Your task to perform on an android device: When is my next meeting? Image 0: 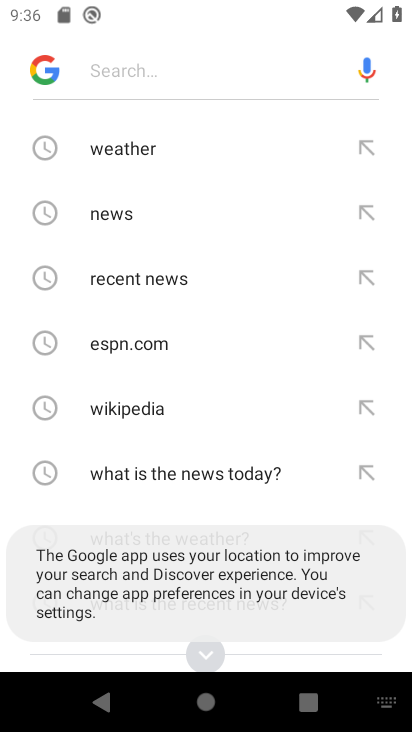
Step 0: press back button
Your task to perform on an android device: When is my next meeting? Image 1: 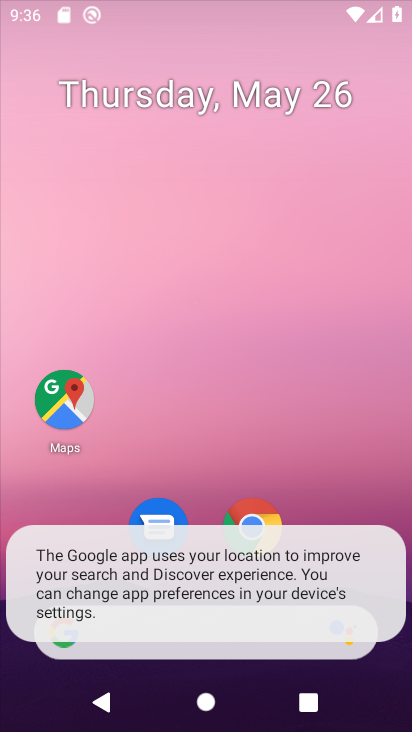
Step 1: press home button
Your task to perform on an android device: When is my next meeting? Image 2: 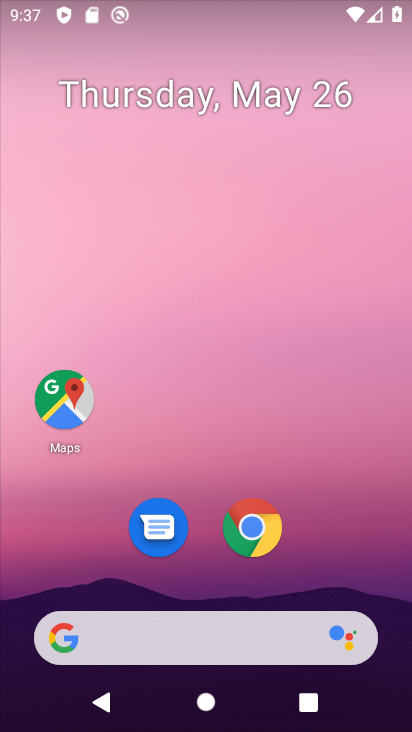
Step 2: drag from (181, 503) to (258, 24)
Your task to perform on an android device: When is my next meeting? Image 3: 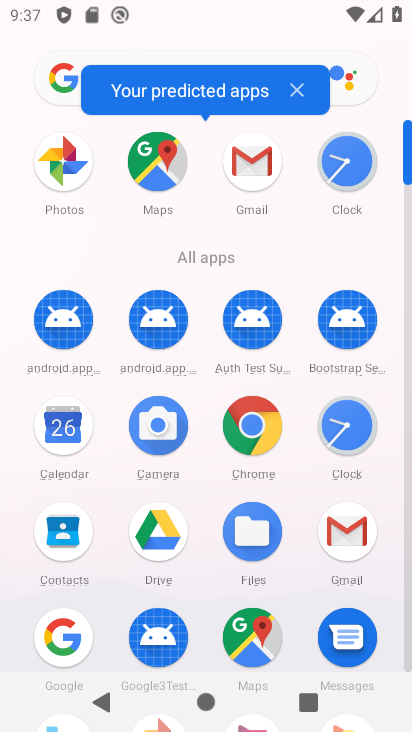
Step 3: click (68, 431)
Your task to perform on an android device: When is my next meeting? Image 4: 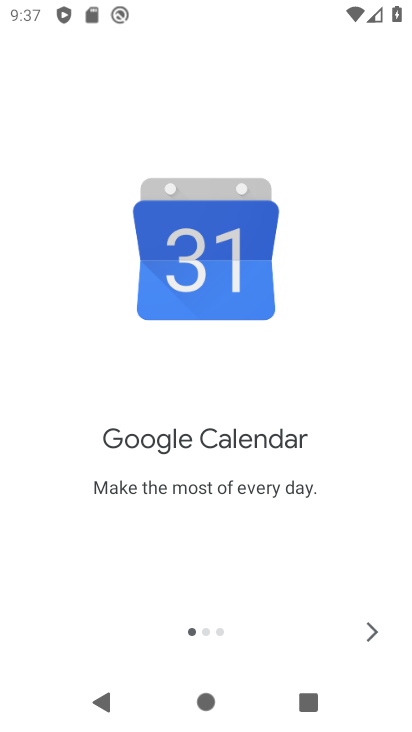
Step 4: click (365, 641)
Your task to perform on an android device: When is my next meeting? Image 5: 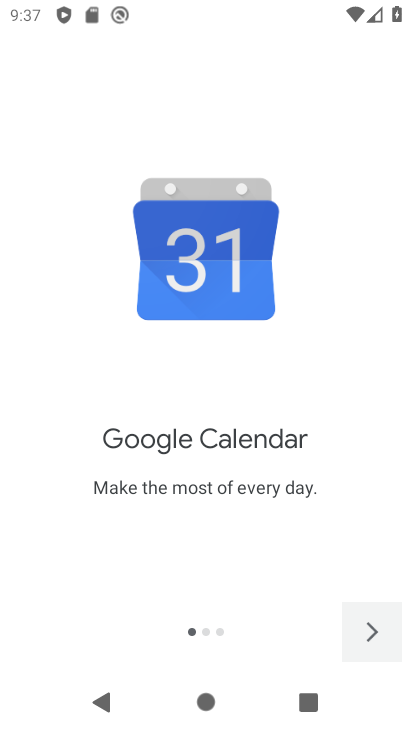
Step 5: click (365, 641)
Your task to perform on an android device: When is my next meeting? Image 6: 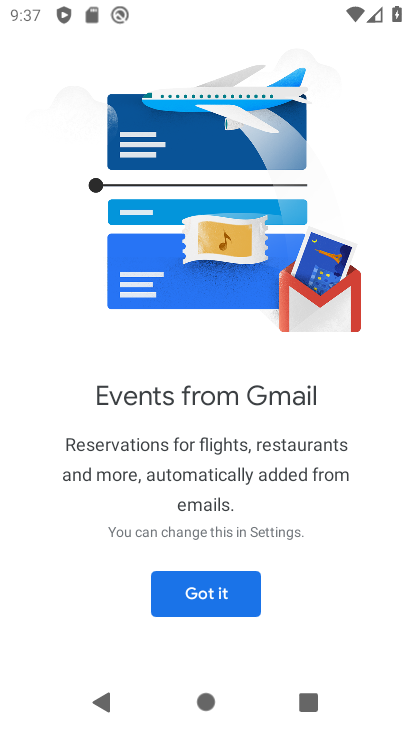
Step 6: click (173, 582)
Your task to perform on an android device: When is my next meeting? Image 7: 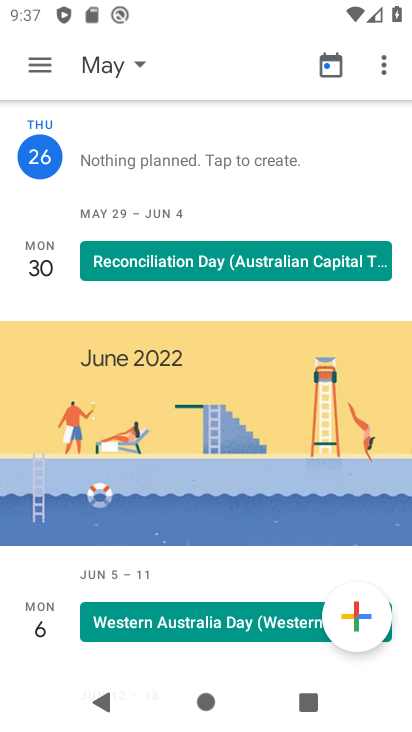
Step 7: click (40, 63)
Your task to perform on an android device: When is my next meeting? Image 8: 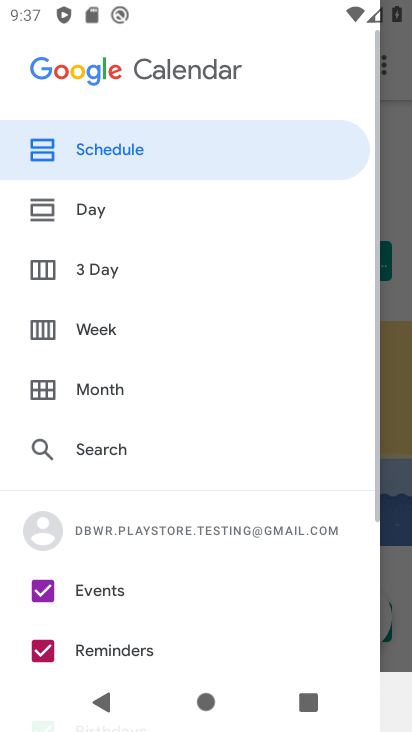
Step 8: click (104, 147)
Your task to perform on an android device: When is my next meeting? Image 9: 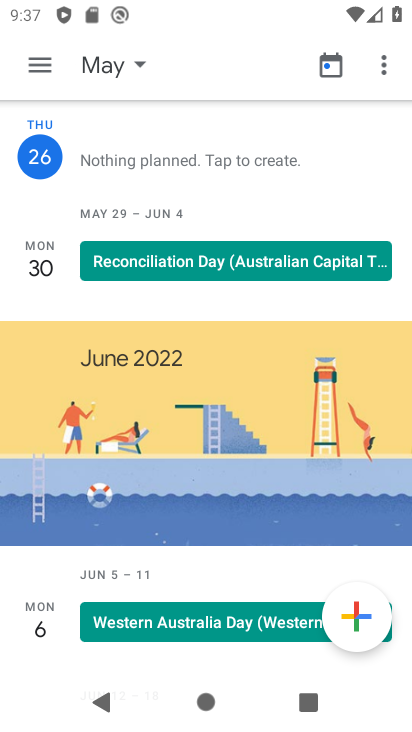
Step 9: click (107, 69)
Your task to perform on an android device: When is my next meeting? Image 10: 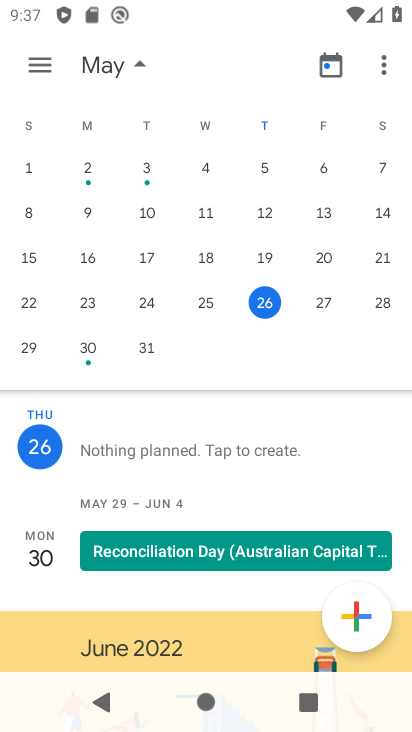
Step 10: click (320, 295)
Your task to perform on an android device: When is my next meeting? Image 11: 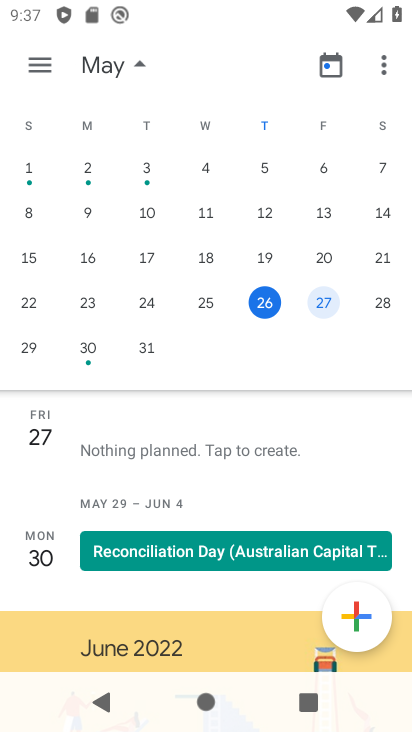
Step 11: task complete